Your task to perform on an android device: change keyboard looks Image 0: 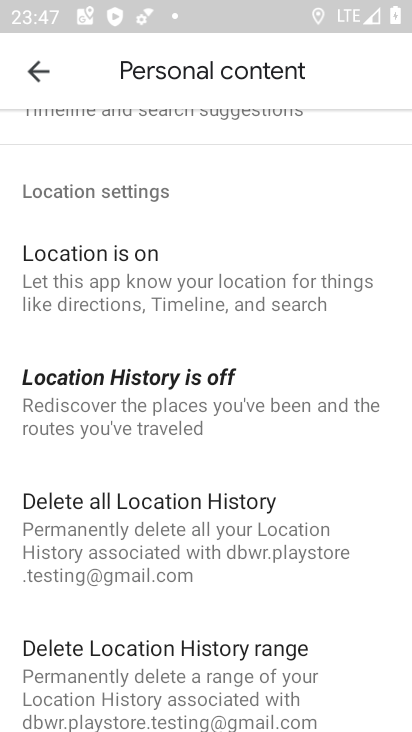
Step 0: press home button
Your task to perform on an android device: change keyboard looks Image 1: 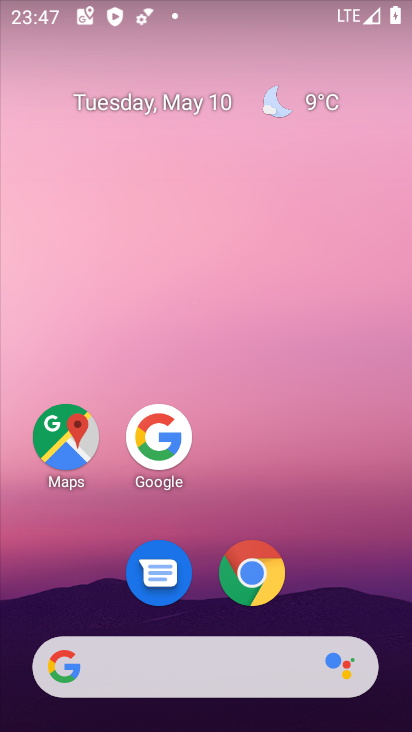
Step 1: drag from (148, 682) to (266, 185)
Your task to perform on an android device: change keyboard looks Image 2: 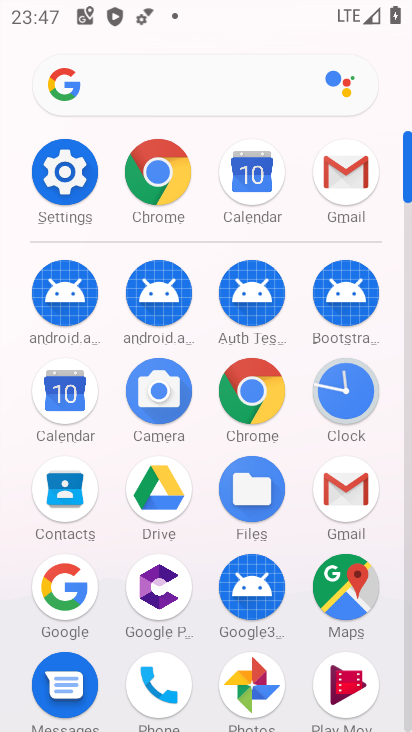
Step 2: click (57, 175)
Your task to perform on an android device: change keyboard looks Image 3: 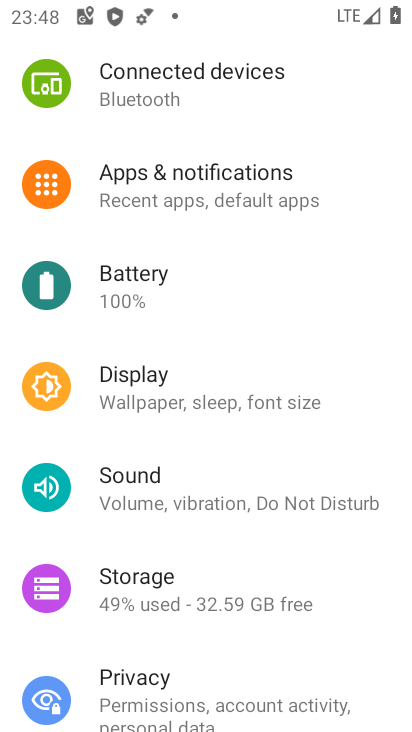
Step 3: drag from (182, 615) to (368, 85)
Your task to perform on an android device: change keyboard looks Image 4: 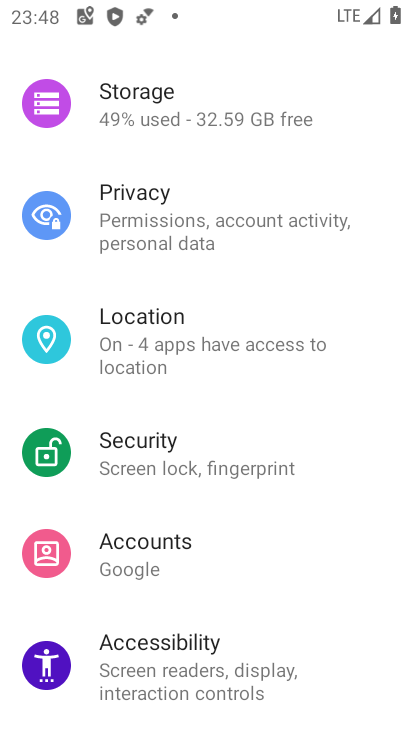
Step 4: drag from (202, 581) to (349, 118)
Your task to perform on an android device: change keyboard looks Image 5: 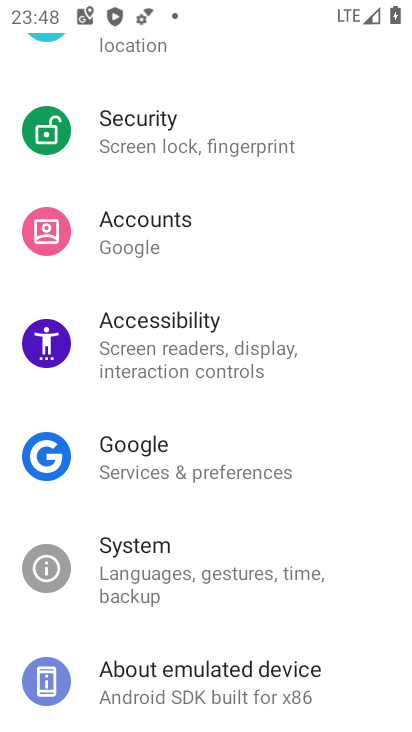
Step 5: click (147, 547)
Your task to perform on an android device: change keyboard looks Image 6: 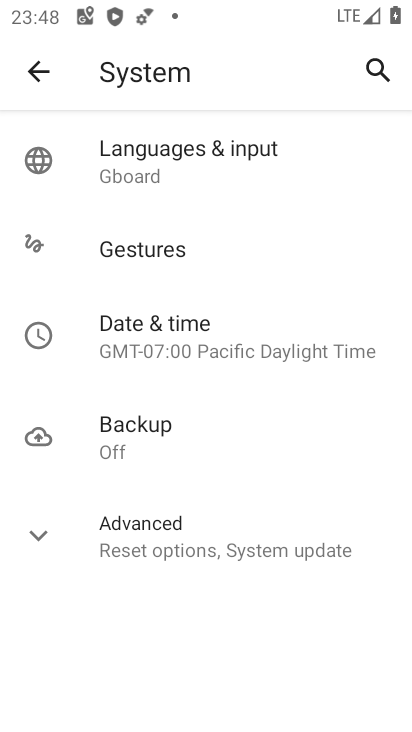
Step 6: click (140, 160)
Your task to perform on an android device: change keyboard looks Image 7: 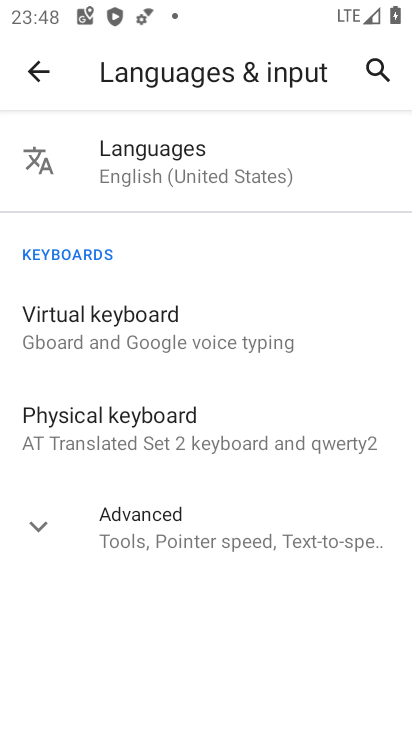
Step 7: click (150, 326)
Your task to perform on an android device: change keyboard looks Image 8: 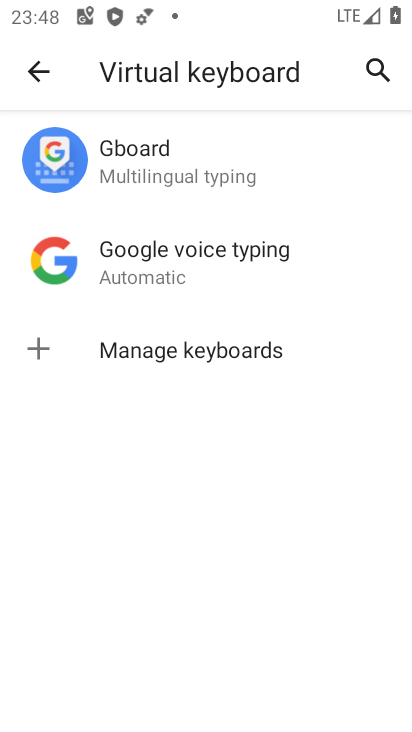
Step 8: click (145, 170)
Your task to perform on an android device: change keyboard looks Image 9: 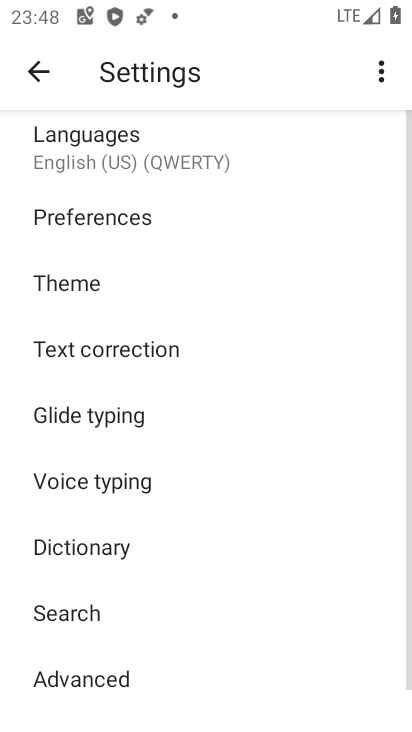
Step 9: click (89, 284)
Your task to perform on an android device: change keyboard looks Image 10: 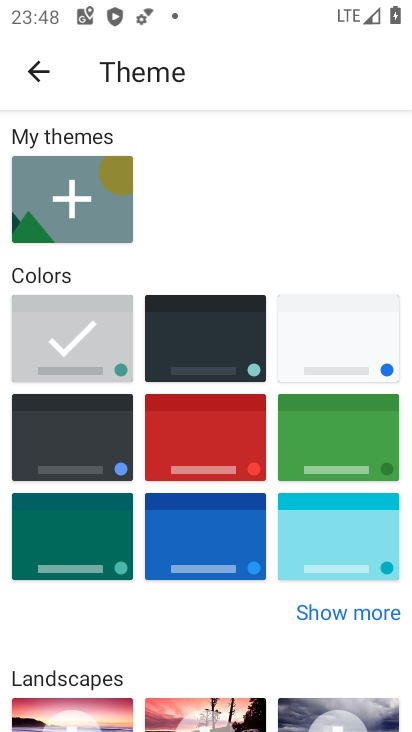
Step 10: click (306, 531)
Your task to perform on an android device: change keyboard looks Image 11: 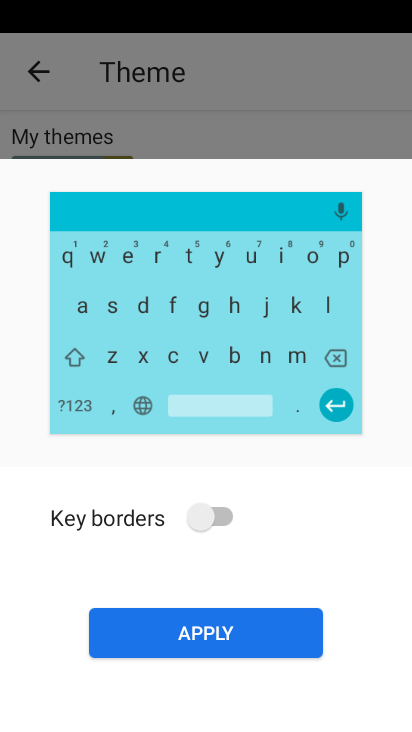
Step 11: click (206, 626)
Your task to perform on an android device: change keyboard looks Image 12: 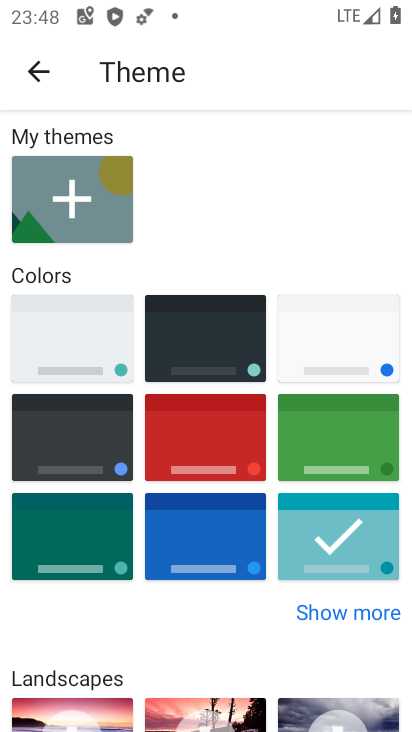
Step 12: task complete